Your task to perform on an android device: toggle notifications settings in the gmail app Image 0: 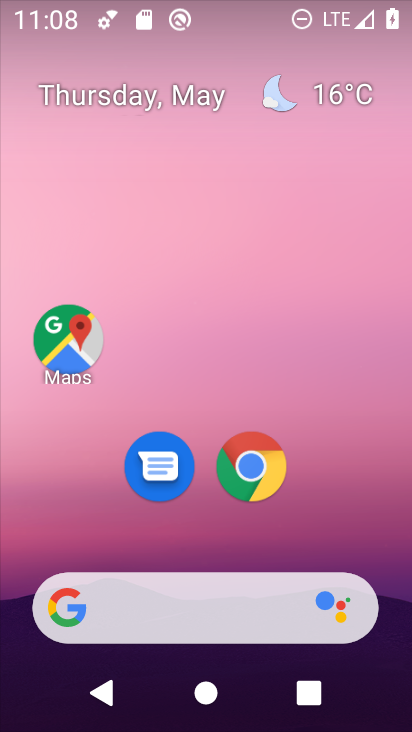
Step 0: drag from (318, 419) to (328, 261)
Your task to perform on an android device: toggle notifications settings in the gmail app Image 1: 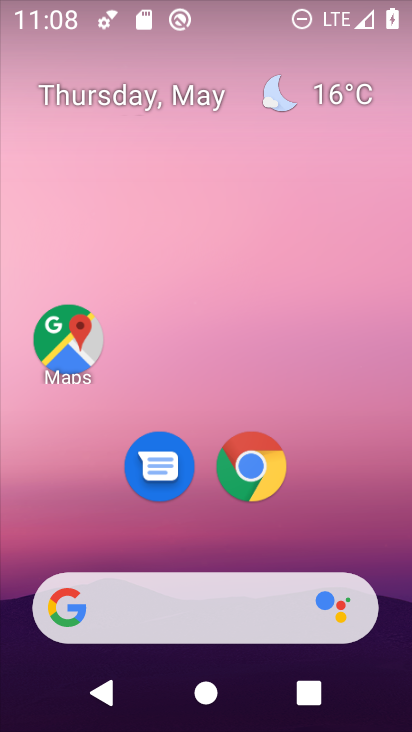
Step 1: drag from (257, 533) to (301, 231)
Your task to perform on an android device: toggle notifications settings in the gmail app Image 2: 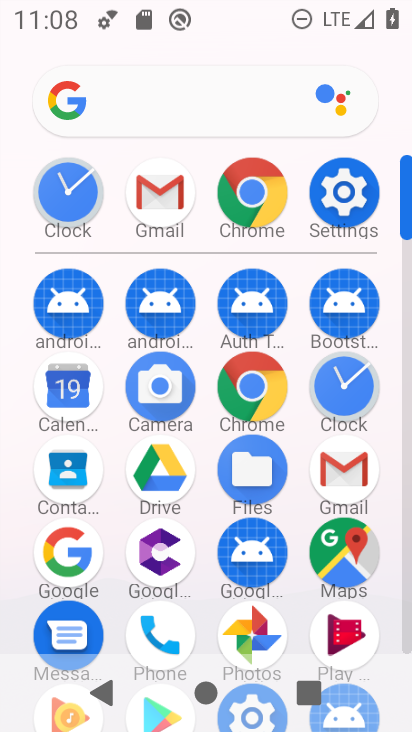
Step 2: click (332, 471)
Your task to perform on an android device: toggle notifications settings in the gmail app Image 3: 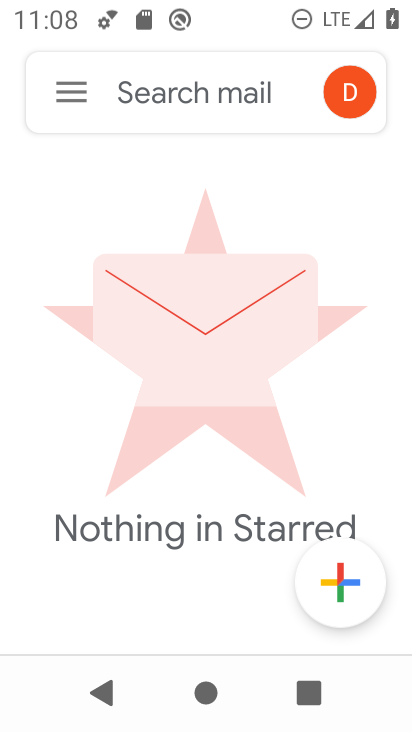
Step 3: click (69, 79)
Your task to perform on an android device: toggle notifications settings in the gmail app Image 4: 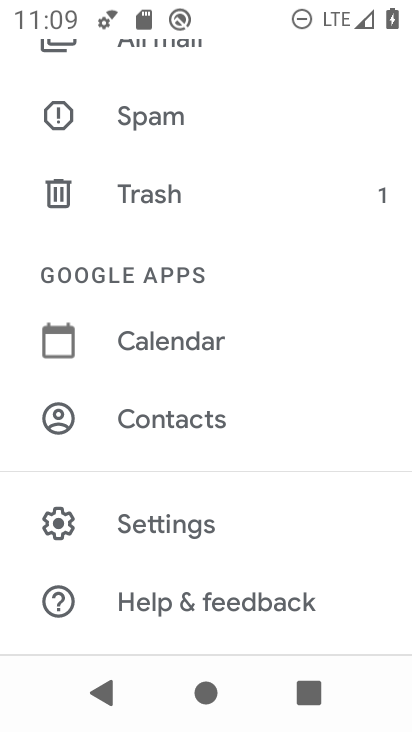
Step 4: click (213, 515)
Your task to perform on an android device: toggle notifications settings in the gmail app Image 5: 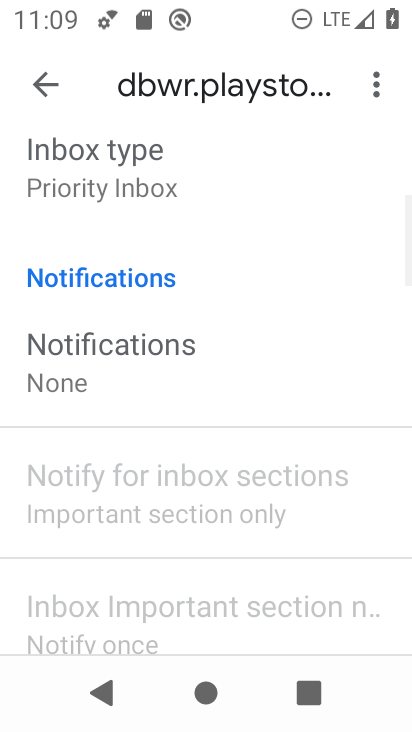
Step 5: click (155, 357)
Your task to perform on an android device: toggle notifications settings in the gmail app Image 6: 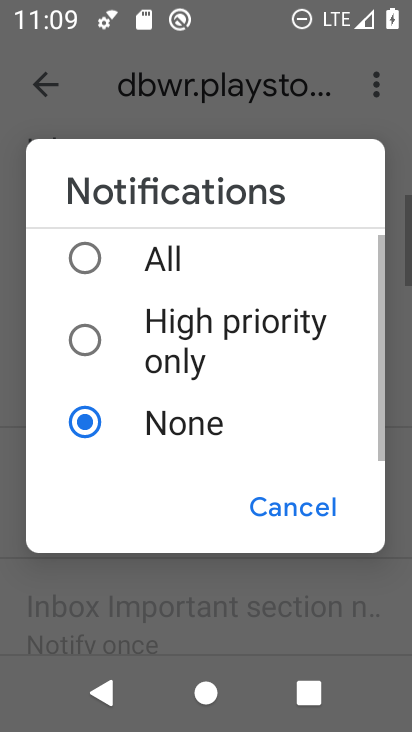
Step 6: click (171, 234)
Your task to perform on an android device: toggle notifications settings in the gmail app Image 7: 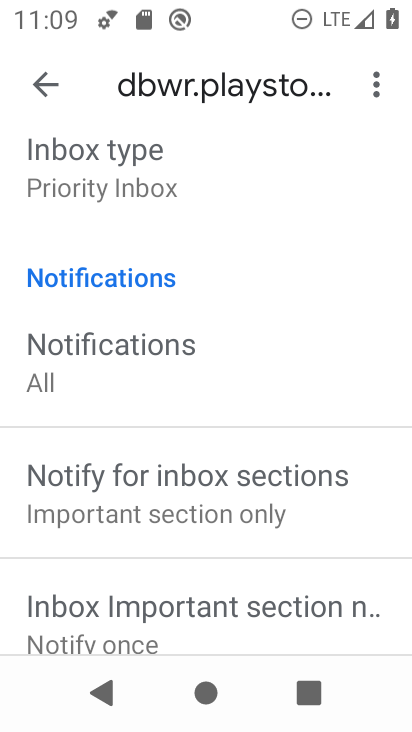
Step 7: click (115, 683)
Your task to perform on an android device: toggle notifications settings in the gmail app Image 8: 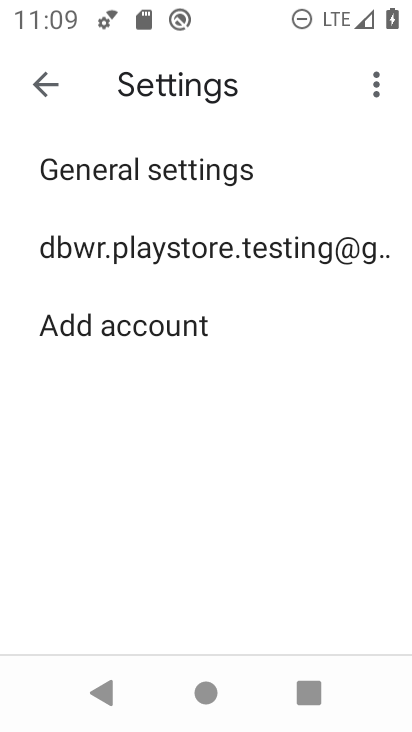
Step 8: press back button
Your task to perform on an android device: toggle notifications settings in the gmail app Image 9: 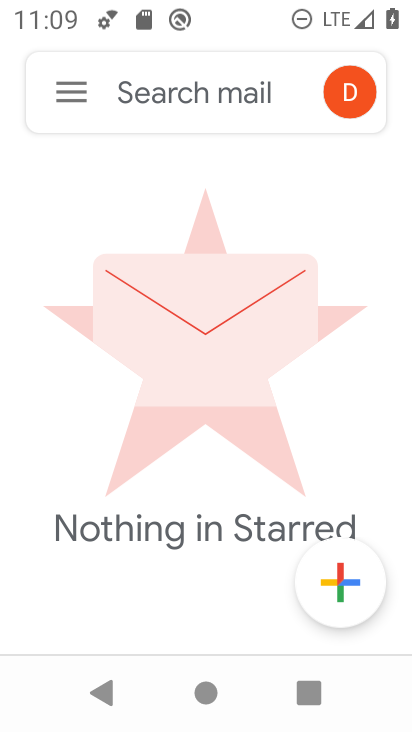
Step 9: click (62, 84)
Your task to perform on an android device: toggle notifications settings in the gmail app Image 10: 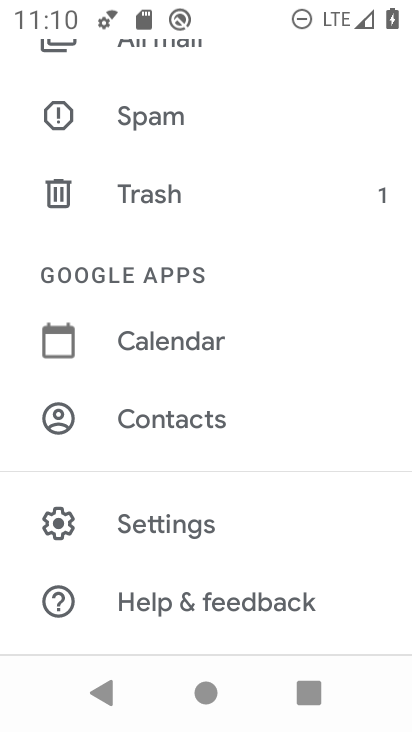
Step 10: drag from (292, 526) to (337, 424)
Your task to perform on an android device: toggle notifications settings in the gmail app Image 11: 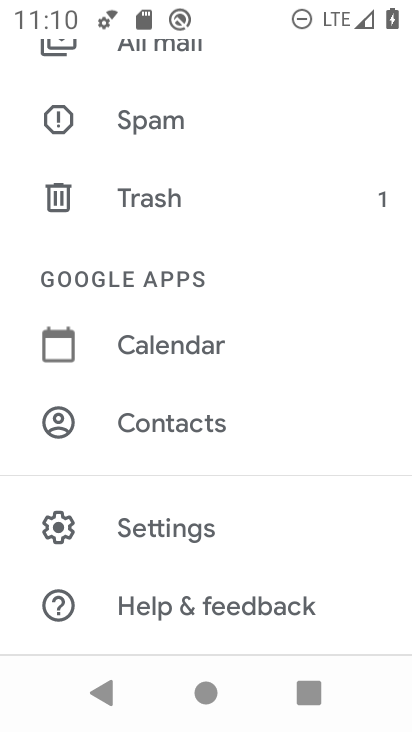
Step 11: click (211, 525)
Your task to perform on an android device: toggle notifications settings in the gmail app Image 12: 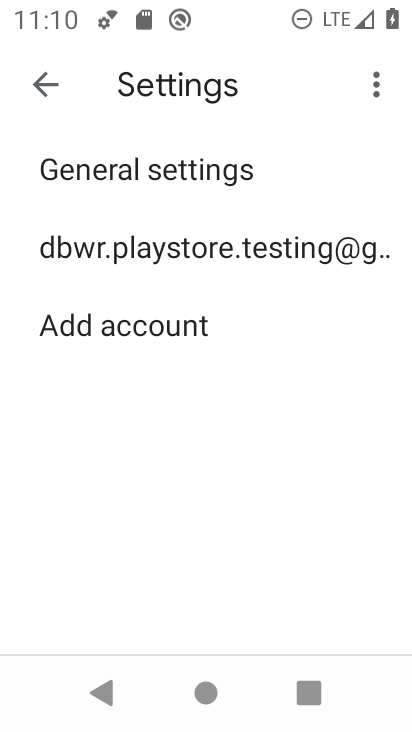
Step 12: click (247, 254)
Your task to perform on an android device: toggle notifications settings in the gmail app Image 13: 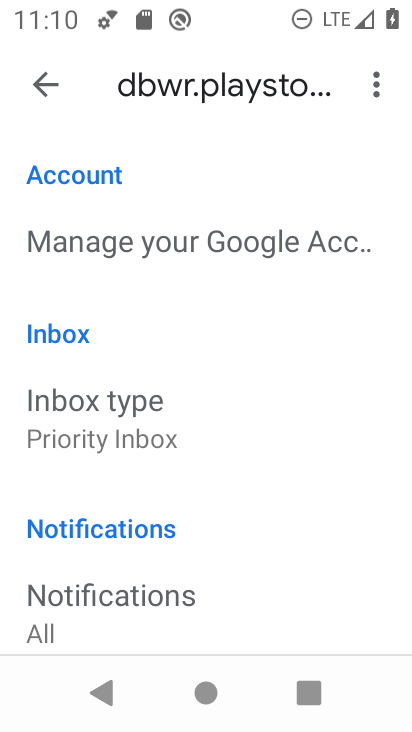
Step 13: task complete